Your task to perform on an android device: turn off location history Image 0: 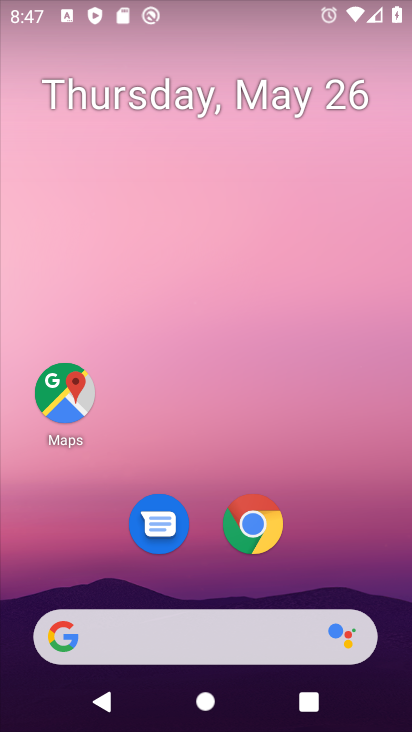
Step 0: drag from (300, 407) to (265, 22)
Your task to perform on an android device: turn off location history Image 1: 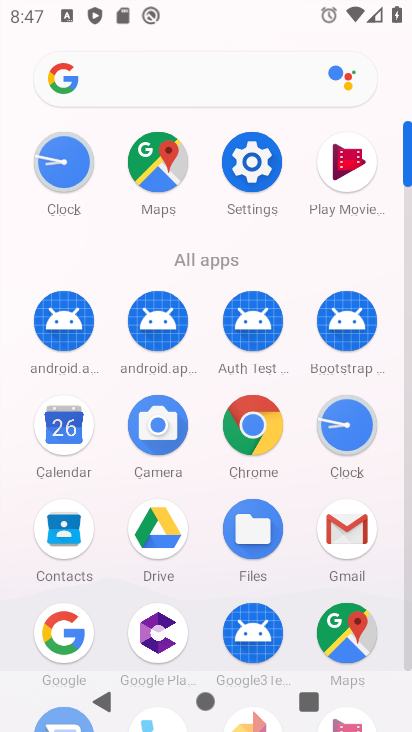
Step 1: click (249, 148)
Your task to perform on an android device: turn off location history Image 2: 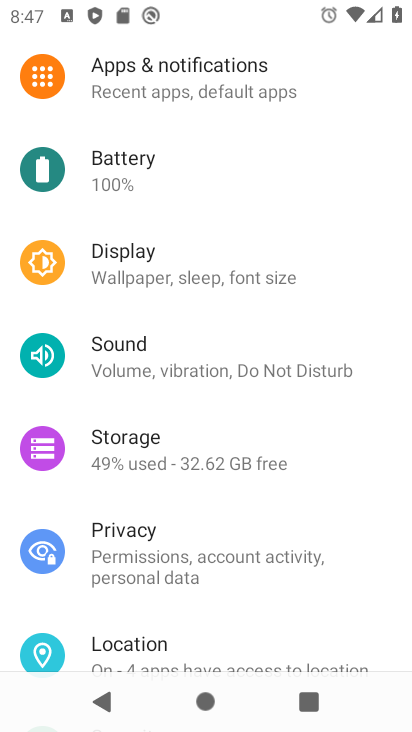
Step 2: click (149, 644)
Your task to perform on an android device: turn off location history Image 3: 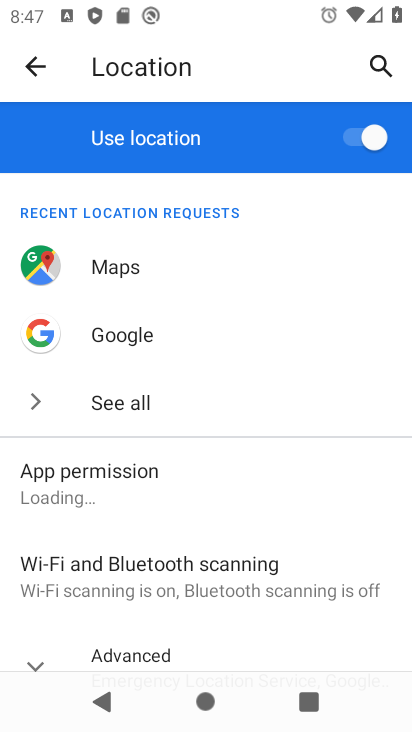
Step 3: click (30, 651)
Your task to perform on an android device: turn off location history Image 4: 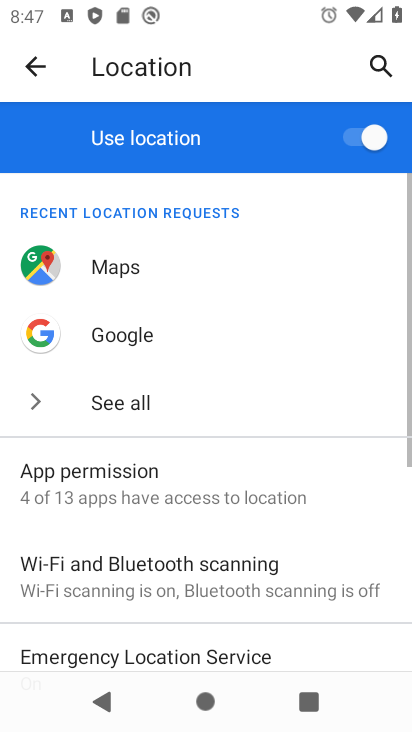
Step 4: task complete